Your task to perform on an android device: Go to Yahoo.com Image 0: 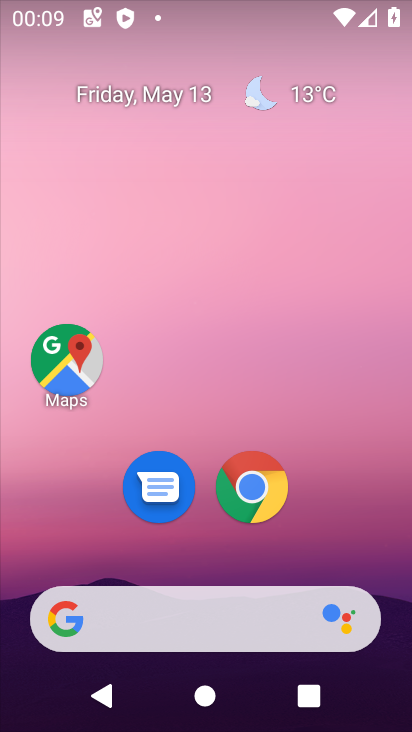
Step 0: click (241, 486)
Your task to perform on an android device: Go to Yahoo.com Image 1: 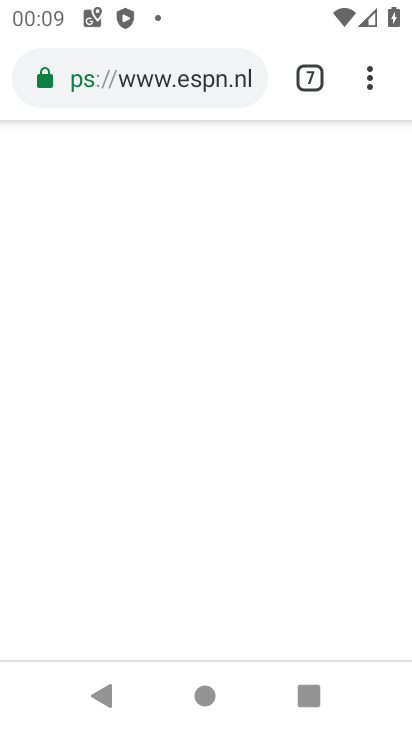
Step 1: click (308, 84)
Your task to perform on an android device: Go to Yahoo.com Image 2: 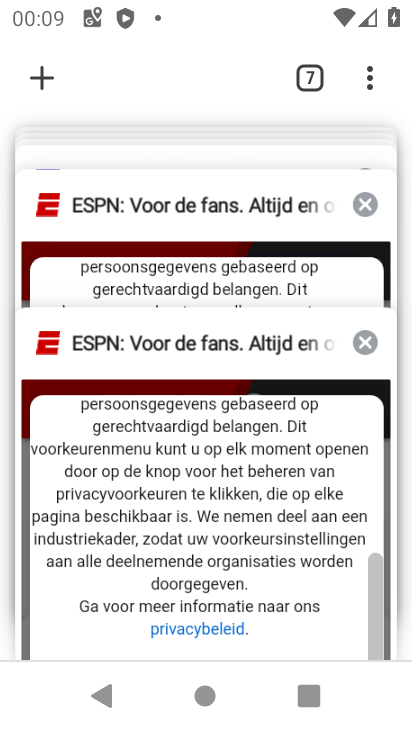
Step 2: click (48, 85)
Your task to perform on an android device: Go to Yahoo.com Image 3: 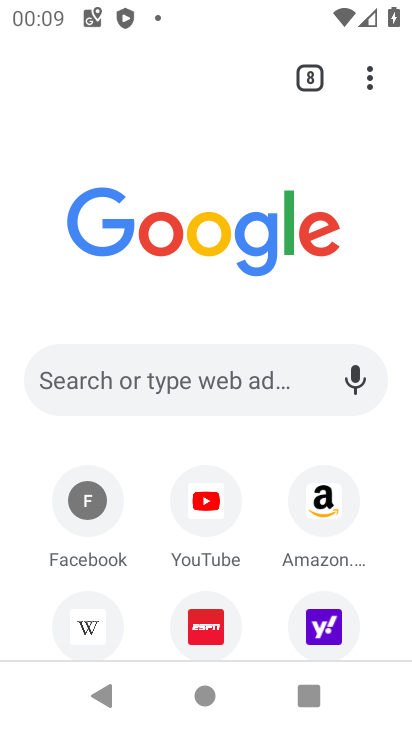
Step 3: click (318, 601)
Your task to perform on an android device: Go to Yahoo.com Image 4: 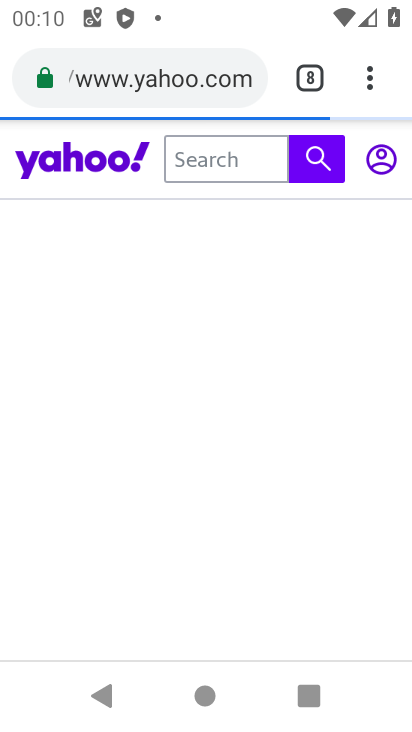
Step 4: task complete